Your task to perform on an android device: toggle improve location accuracy Image 0: 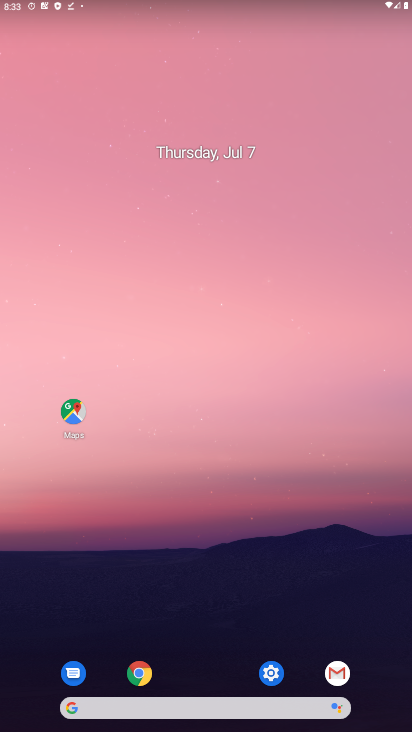
Step 0: click (267, 673)
Your task to perform on an android device: toggle improve location accuracy Image 1: 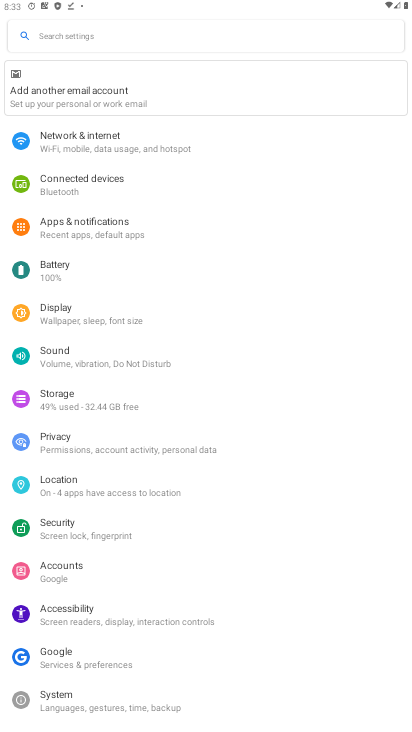
Step 1: click (96, 489)
Your task to perform on an android device: toggle improve location accuracy Image 2: 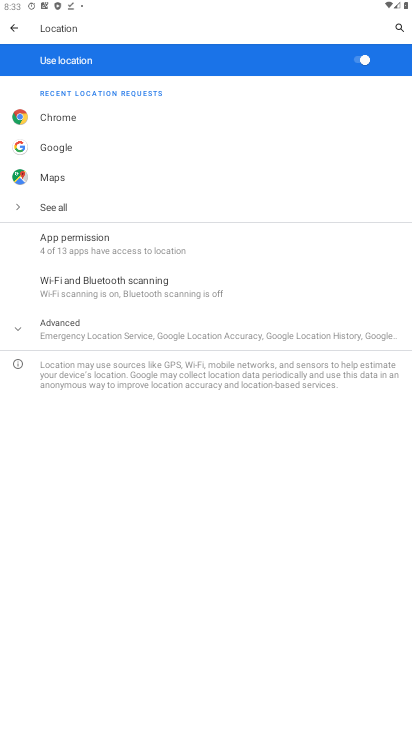
Step 2: click (29, 328)
Your task to perform on an android device: toggle improve location accuracy Image 3: 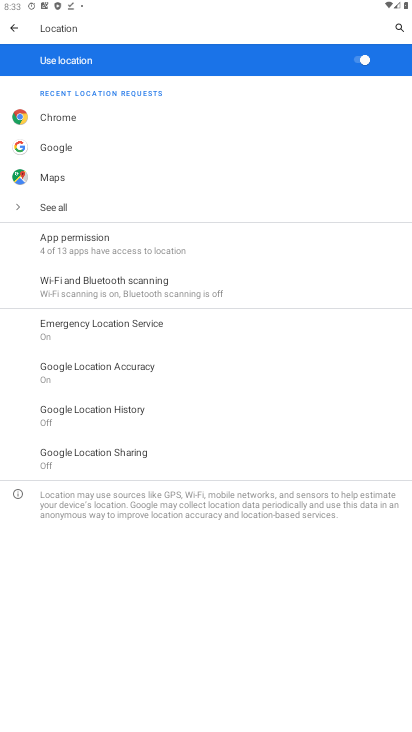
Step 3: click (131, 370)
Your task to perform on an android device: toggle improve location accuracy Image 4: 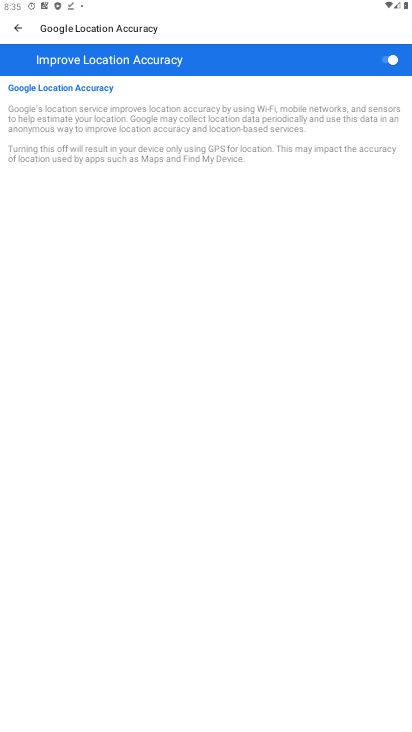
Step 4: task complete